Your task to perform on an android device: turn on the 24-hour format for clock Image 0: 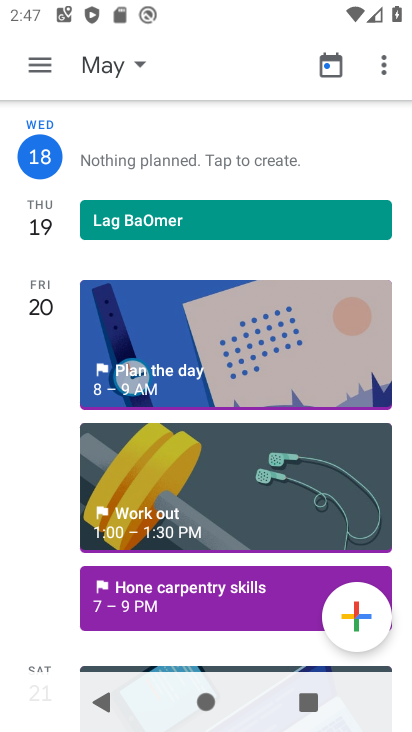
Step 0: press home button
Your task to perform on an android device: turn on the 24-hour format for clock Image 1: 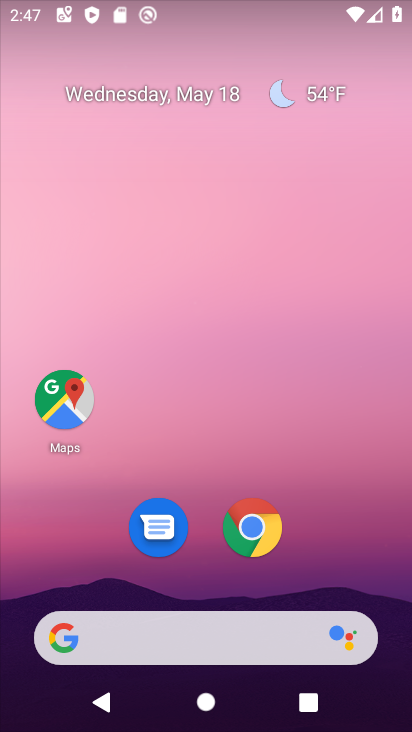
Step 1: drag from (218, 606) to (156, 7)
Your task to perform on an android device: turn on the 24-hour format for clock Image 2: 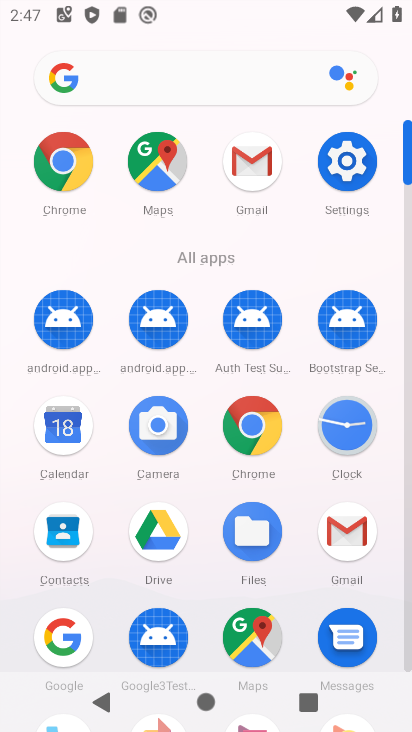
Step 2: click (360, 419)
Your task to perform on an android device: turn on the 24-hour format for clock Image 3: 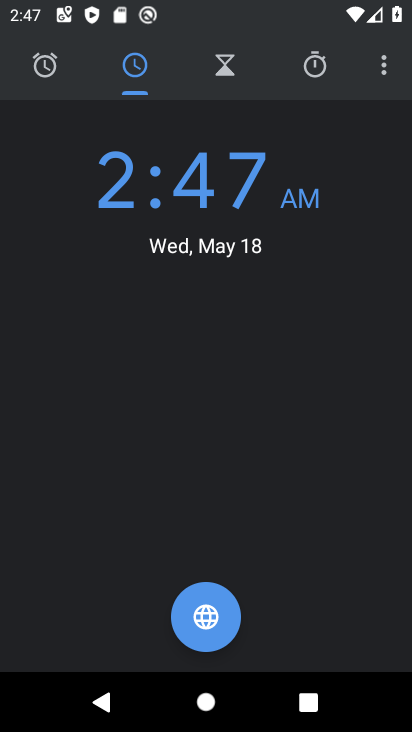
Step 3: click (377, 86)
Your task to perform on an android device: turn on the 24-hour format for clock Image 4: 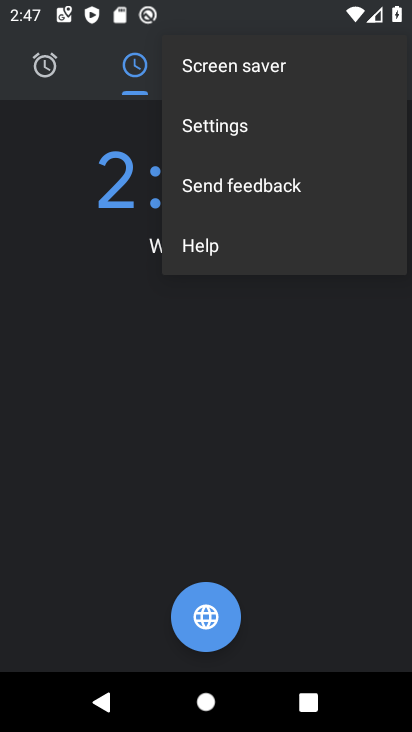
Step 4: click (261, 140)
Your task to perform on an android device: turn on the 24-hour format for clock Image 5: 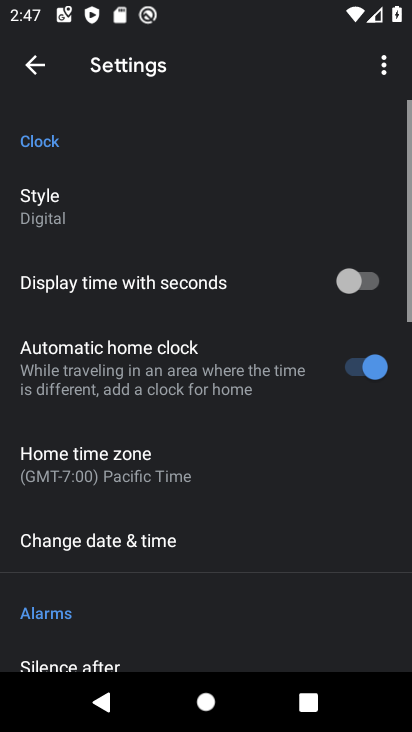
Step 5: click (188, 547)
Your task to perform on an android device: turn on the 24-hour format for clock Image 6: 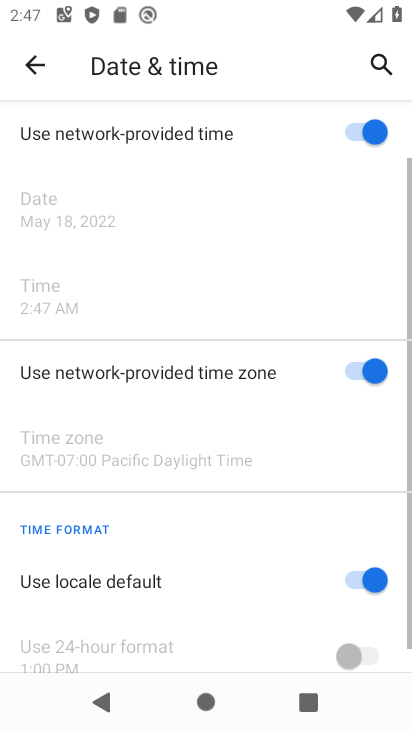
Step 6: drag from (190, 544) to (127, 40)
Your task to perform on an android device: turn on the 24-hour format for clock Image 7: 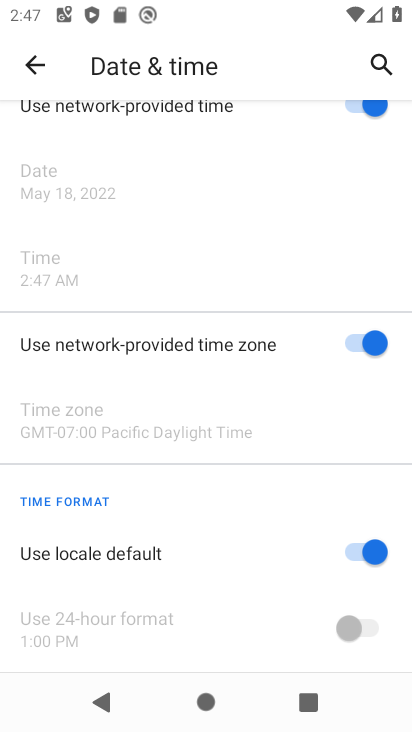
Step 7: click (355, 547)
Your task to perform on an android device: turn on the 24-hour format for clock Image 8: 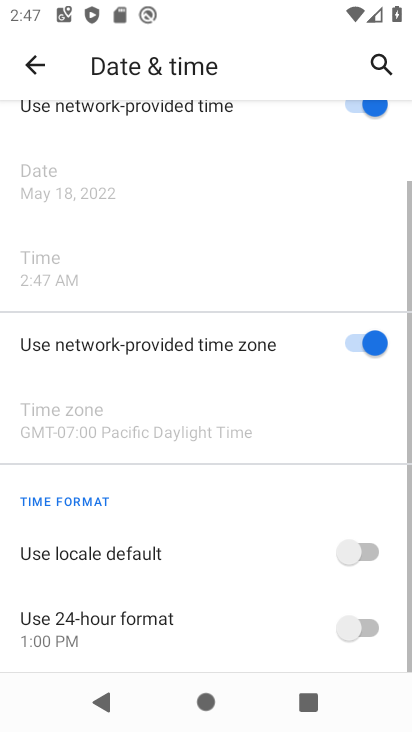
Step 8: click (358, 626)
Your task to perform on an android device: turn on the 24-hour format for clock Image 9: 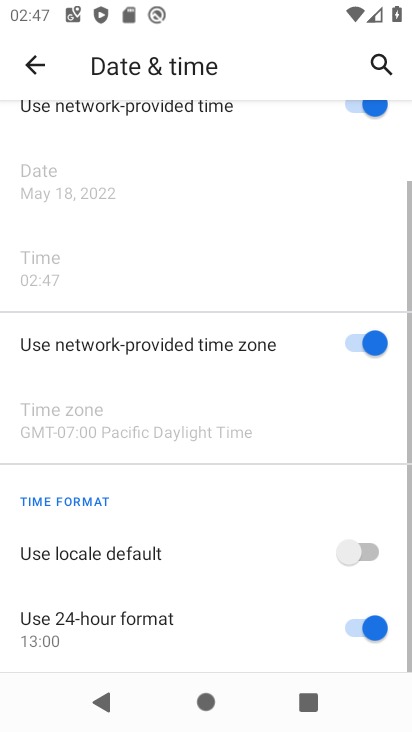
Step 9: task complete